Your task to perform on an android device: turn on javascript in the chrome app Image 0: 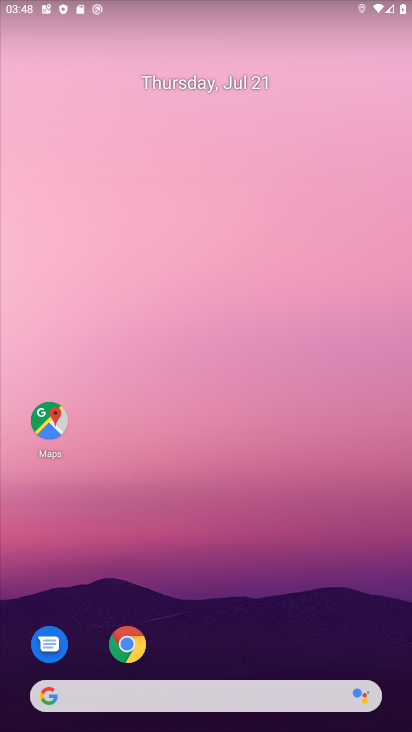
Step 0: click (134, 652)
Your task to perform on an android device: turn on javascript in the chrome app Image 1: 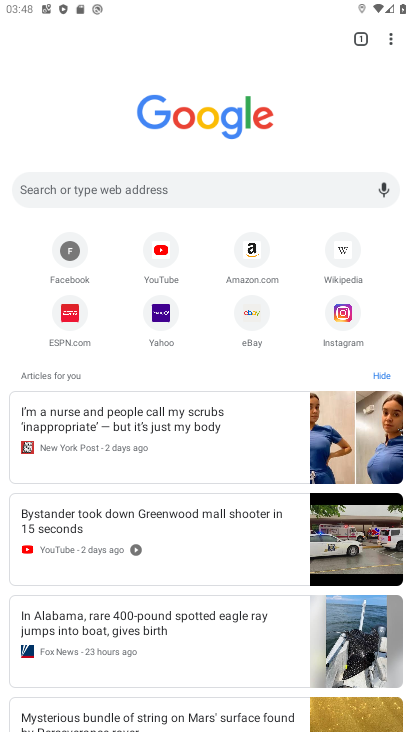
Step 1: click (391, 47)
Your task to perform on an android device: turn on javascript in the chrome app Image 2: 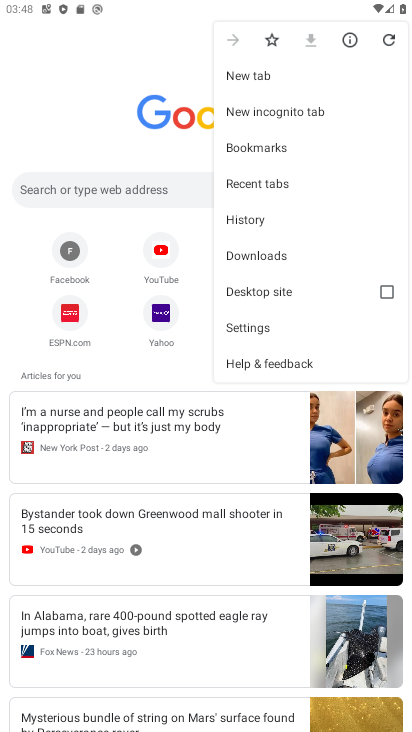
Step 2: click (250, 332)
Your task to perform on an android device: turn on javascript in the chrome app Image 3: 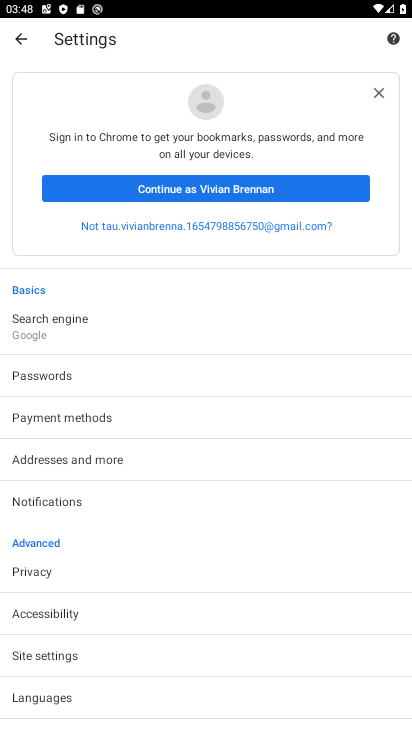
Step 3: click (72, 657)
Your task to perform on an android device: turn on javascript in the chrome app Image 4: 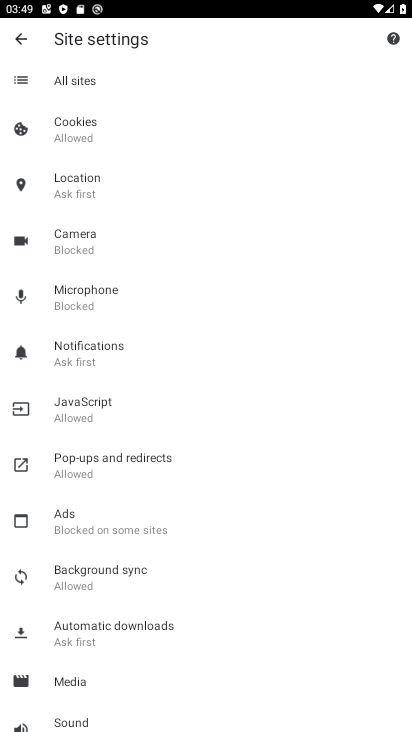
Step 4: click (74, 402)
Your task to perform on an android device: turn on javascript in the chrome app Image 5: 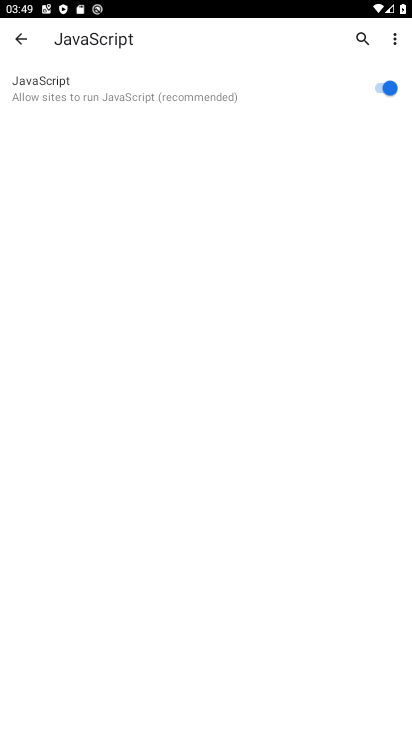
Step 5: task complete